Your task to perform on an android device: Open CNN.com Image 0: 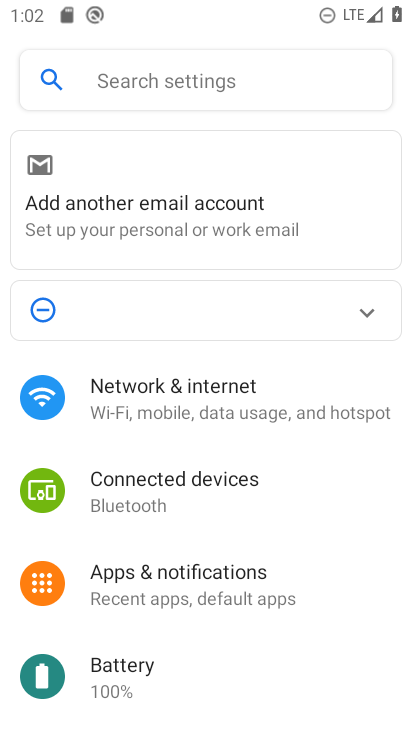
Step 0: press home button
Your task to perform on an android device: Open CNN.com Image 1: 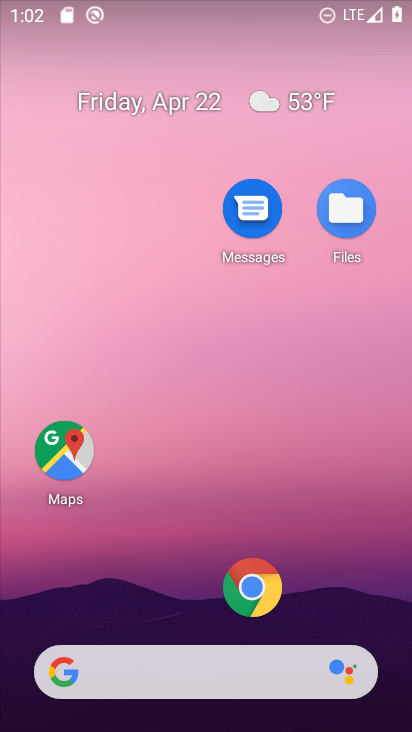
Step 1: click (254, 590)
Your task to perform on an android device: Open CNN.com Image 2: 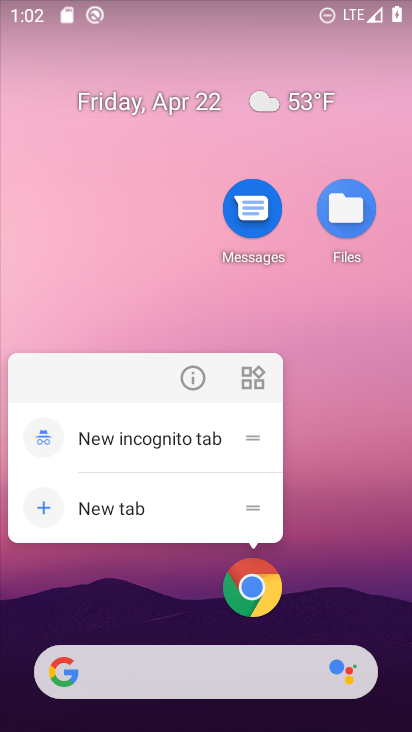
Step 2: click (185, 372)
Your task to perform on an android device: Open CNN.com Image 3: 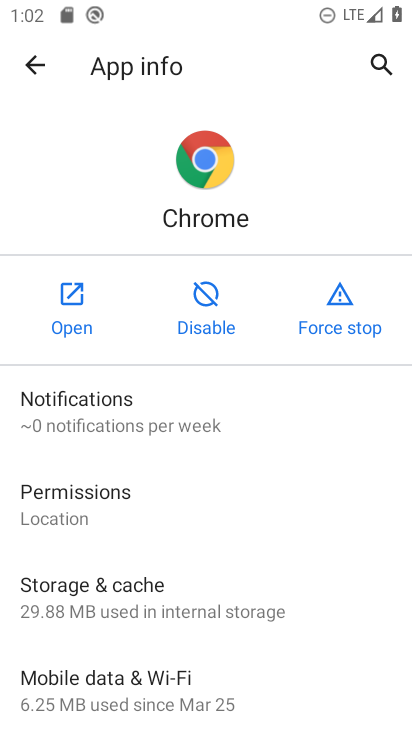
Step 3: click (53, 302)
Your task to perform on an android device: Open CNN.com Image 4: 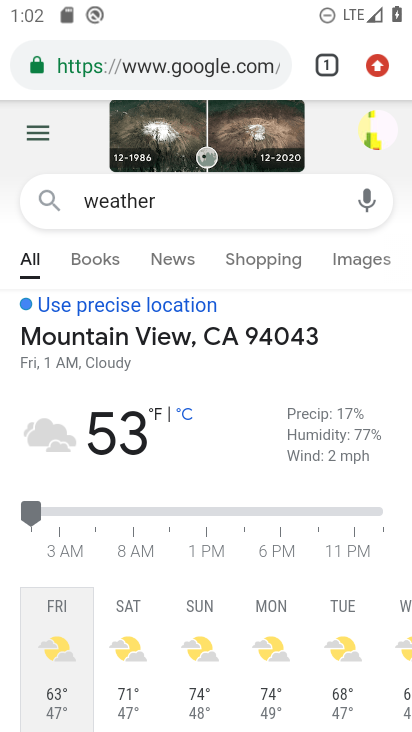
Step 4: click (138, 56)
Your task to perform on an android device: Open CNN.com Image 5: 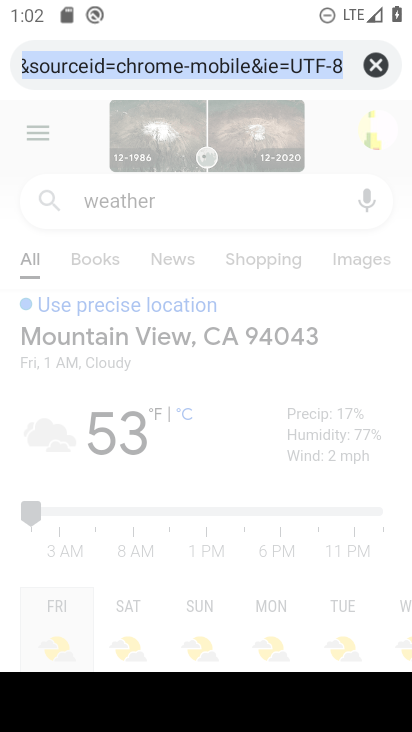
Step 5: type "CNN.com"
Your task to perform on an android device: Open CNN.com Image 6: 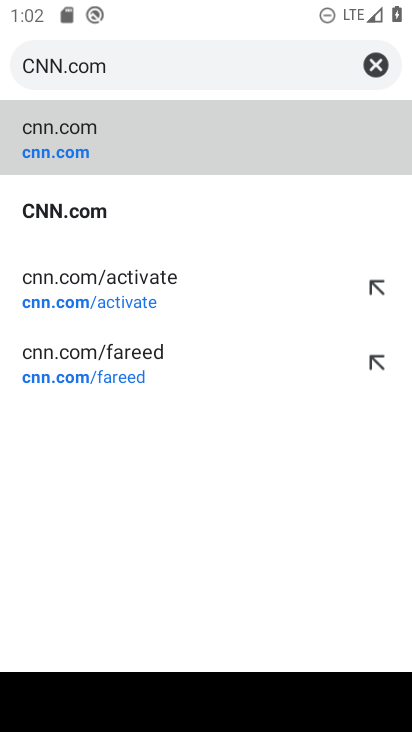
Step 6: click (121, 143)
Your task to perform on an android device: Open CNN.com Image 7: 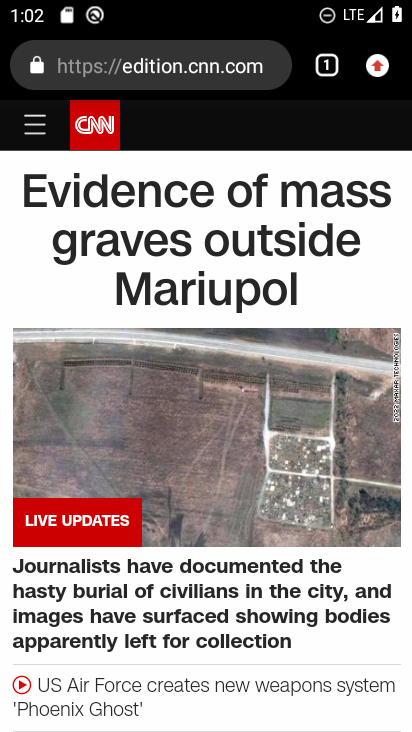
Step 7: task complete